Your task to perform on an android device: Open the calendar app, open the side menu, and click the "Day" option Image 0: 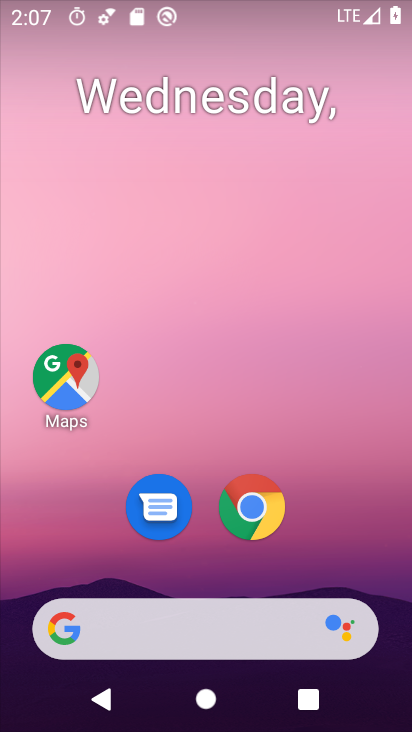
Step 0: drag from (234, 569) to (234, 127)
Your task to perform on an android device: Open the calendar app, open the side menu, and click the "Day" option Image 1: 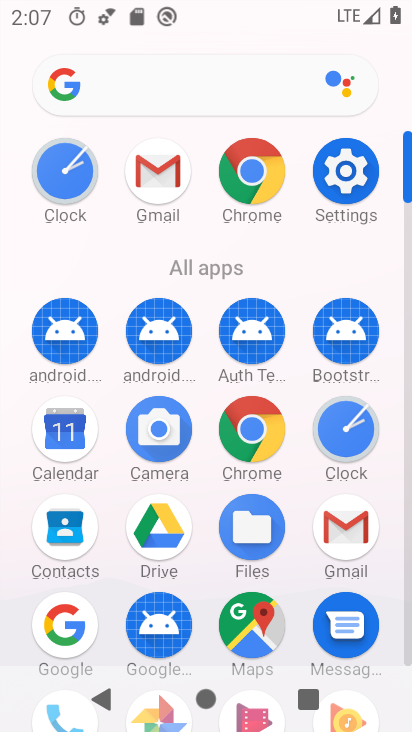
Step 1: click (80, 449)
Your task to perform on an android device: Open the calendar app, open the side menu, and click the "Day" option Image 2: 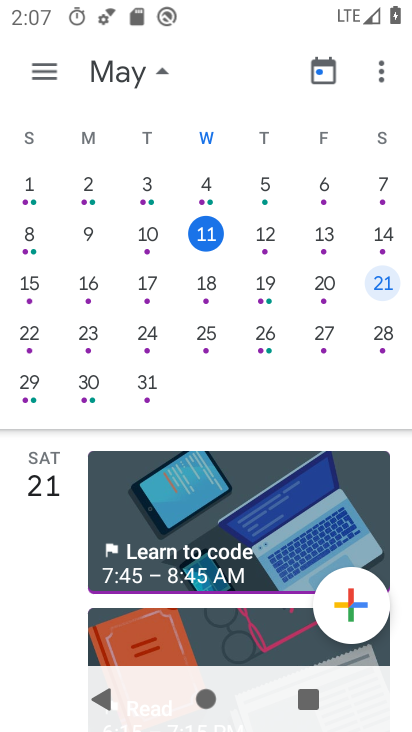
Step 2: click (50, 71)
Your task to perform on an android device: Open the calendar app, open the side menu, and click the "Day" option Image 3: 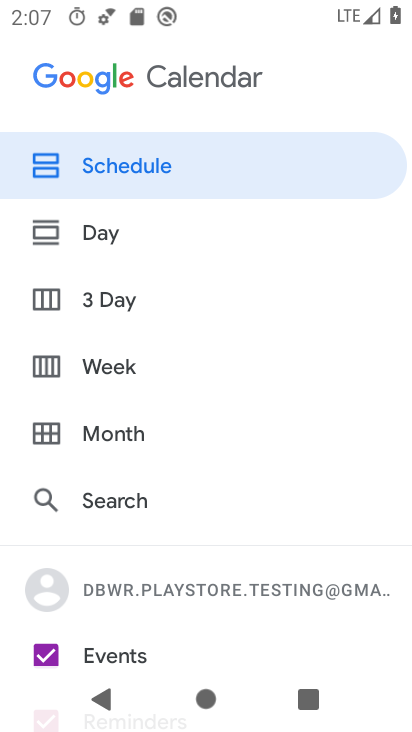
Step 3: click (116, 235)
Your task to perform on an android device: Open the calendar app, open the side menu, and click the "Day" option Image 4: 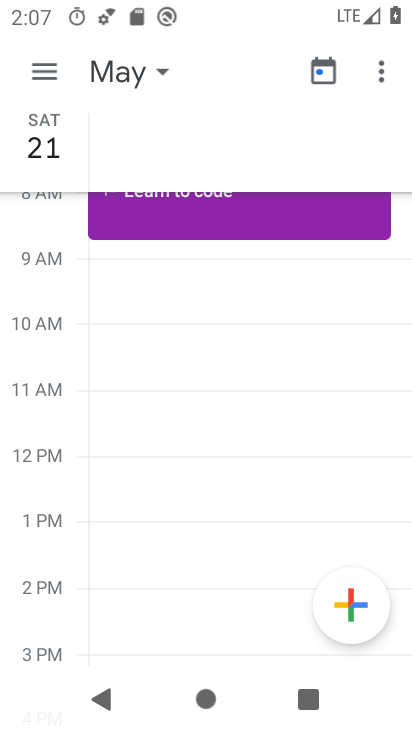
Step 4: task complete